Your task to perform on an android device: change the upload size in google photos Image 0: 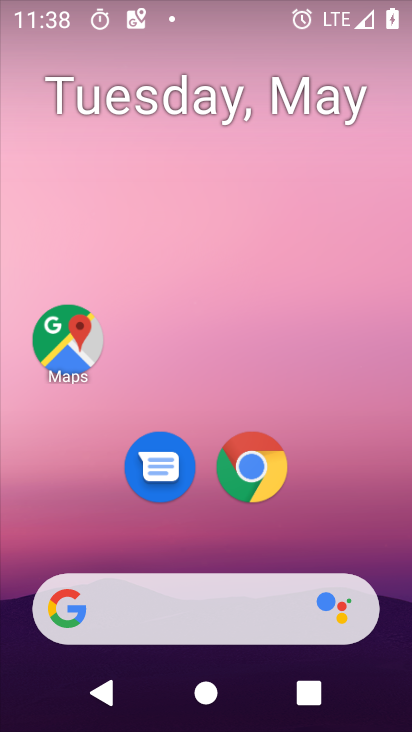
Step 0: drag from (338, 470) to (223, 41)
Your task to perform on an android device: change the upload size in google photos Image 1: 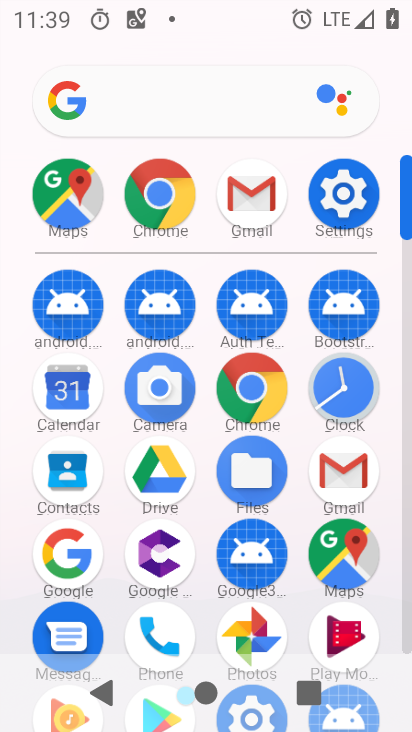
Step 1: drag from (7, 492) to (2, 211)
Your task to perform on an android device: change the upload size in google photos Image 2: 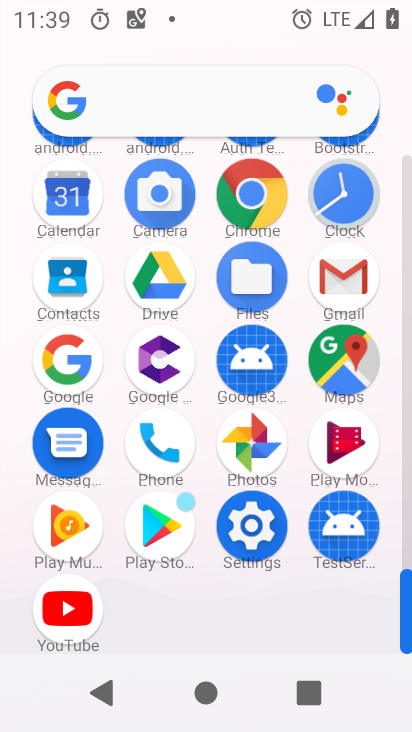
Step 2: click (250, 441)
Your task to perform on an android device: change the upload size in google photos Image 3: 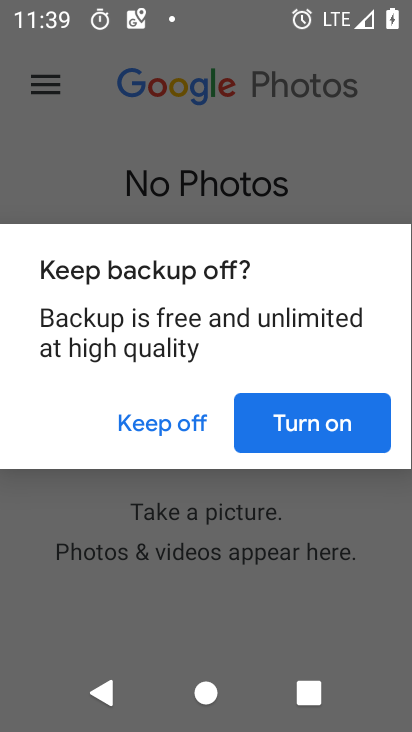
Step 3: press back button
Your task to perform on an android device: change the upload size in google photos Image 4: 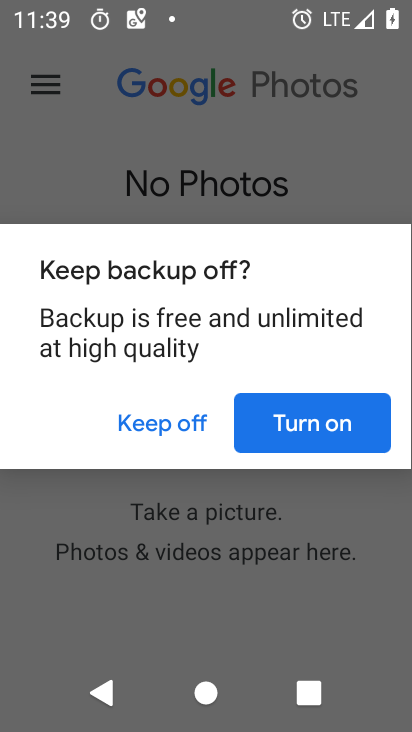
Step 4: press back button
Your task to perform on an android device: change the upload size in google photos Image 5: 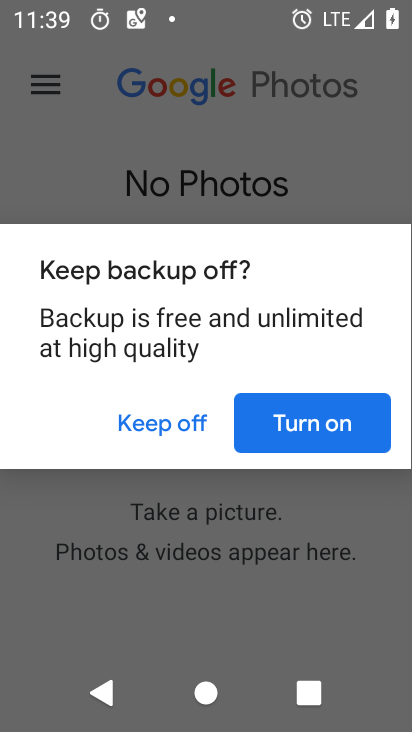
Step 5: click (308, 185)
Your task to perform on an android device: change the upload size in google photos Image 6: 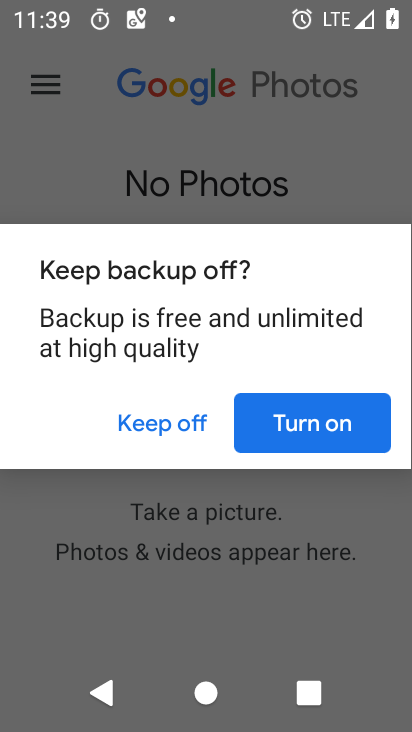
Step 6: click (272, 416)
Your task to perform on an android device: change the upload size in google photos Image 7: 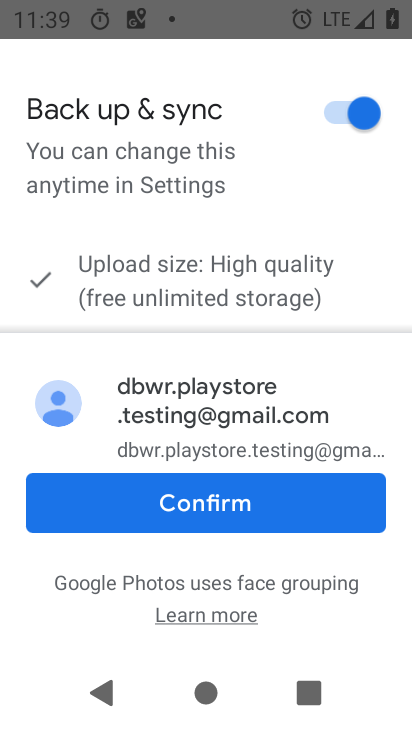
Step 7: click (223, 494)
Your task to perform on an android device: change the upload size in google photos Image 8: 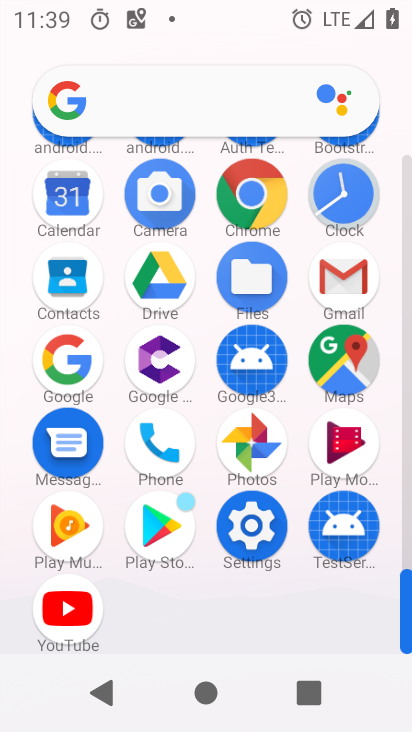
Step 8: click (246, 436)
Your task to perform on an android device: change the upload size in google photos Image 9: 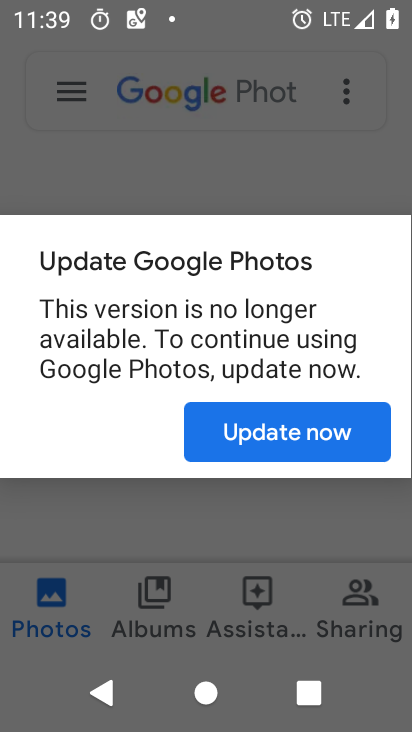
Step 9: click (251, 427)
Your task to perform on an android device: change the upload size in google photos Image 10: 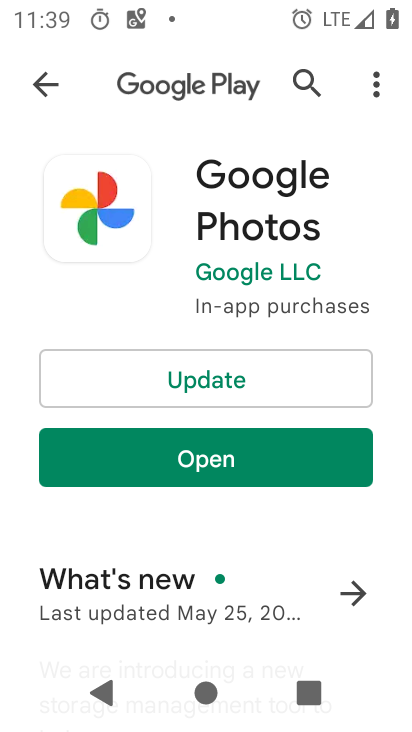
Step 10: click (221, 373)
Your task to perform on an android device: change the upload size in google photos Image 11: 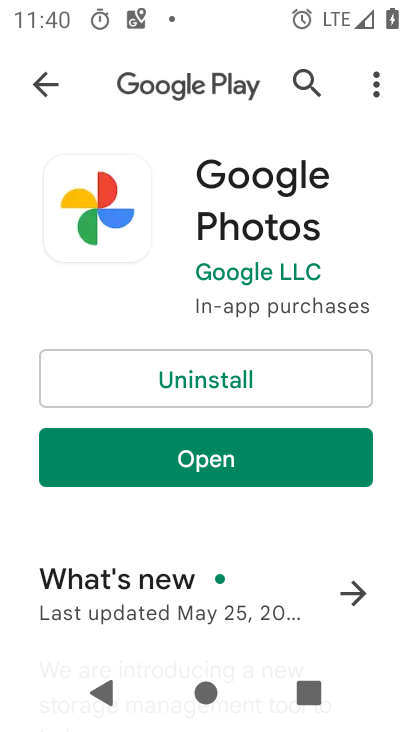
Step 11: click (173, 458)
Your task to perform on an android device: change the upload size in google photos Image 12: 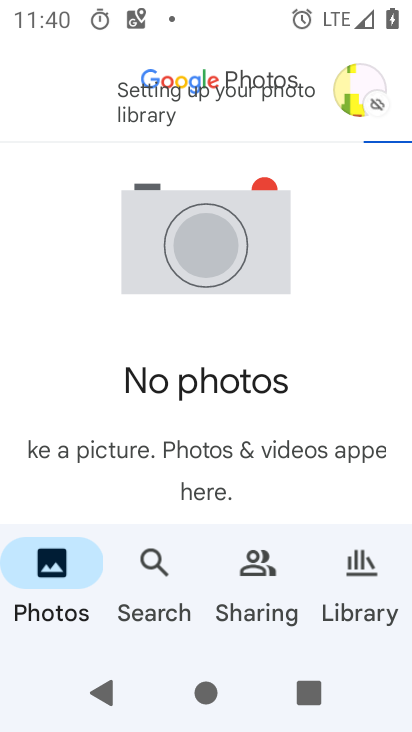
Step 12: click (349, 83)
Your task to perform on an android device: change the upload size in google photos Image 13: 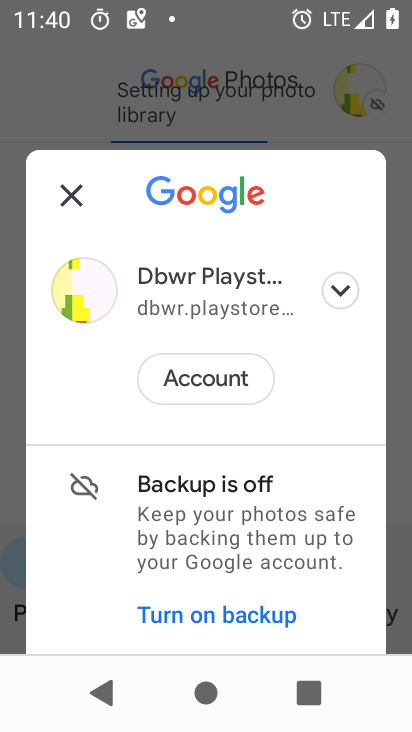
Step 13: drag from (272, 553) to (263, 246)
Your task to perform on an android device: change the upload size in google photos Image 14: 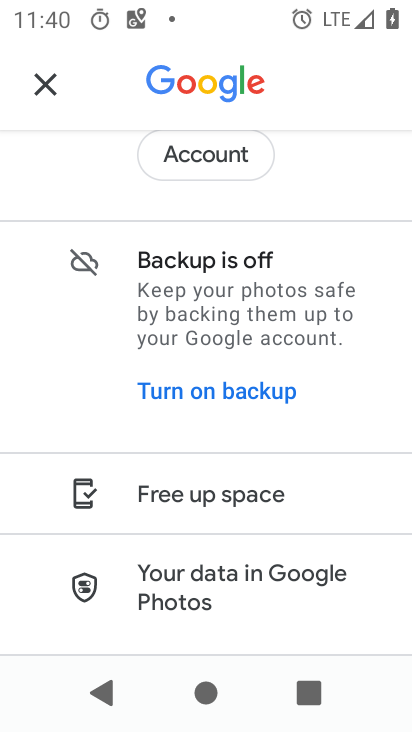
Step 14: drag from (267, 601) to (305, 233)
Your task to perform on an android device: change the upload size in google photos Image 15: 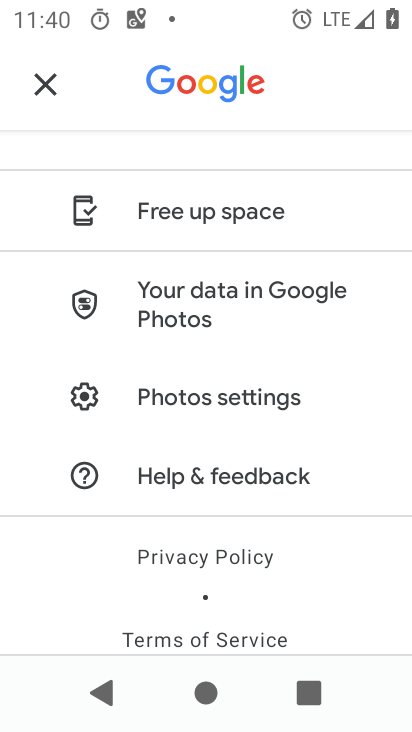
Step 15: click (253, 397)
Your task to perform on an android device: change the upload size in google photos Image 16: 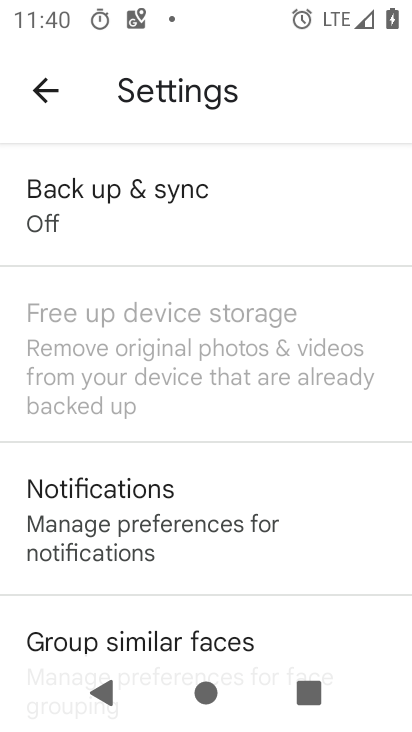
Step 16: drag from (250, 590) to (262, 199)
Your task to perform on an android device: change the upload size in google photos Image 17: 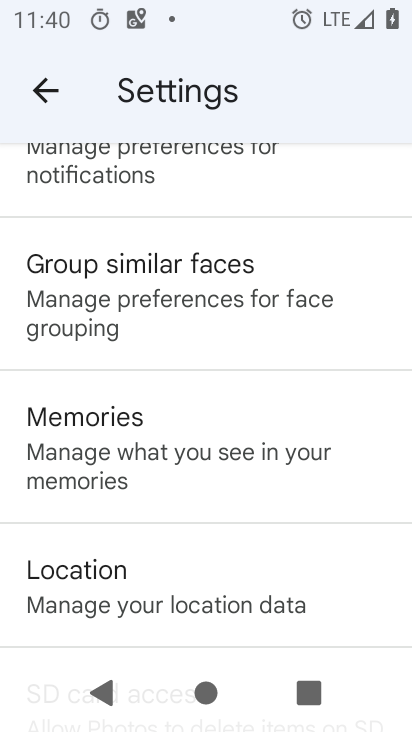
Step 17: drag from (211, 522) to (214, 139)
Your task to perform on an android device: change the upload size in google photos Image 18: 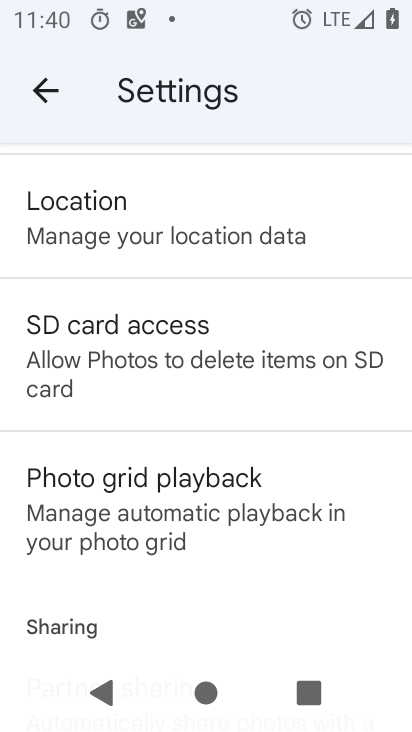
Step 18: drag from (196, 494) to (226, 181)
Your task to perform on an android device: change the upload size in google photos Image 19: 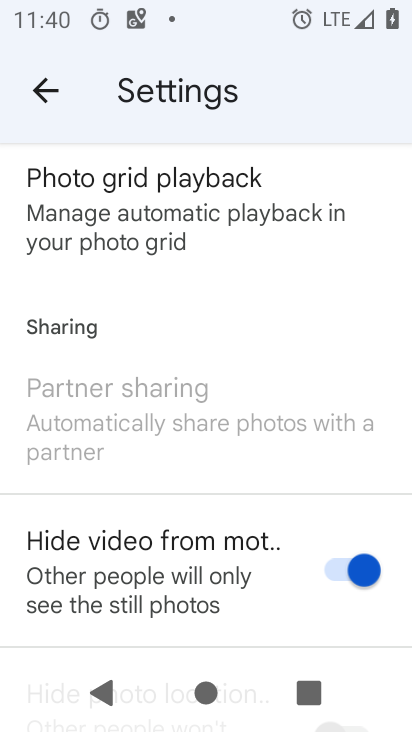
Step 19: drag from (213, 529) to (242, 158)
Your task to perform on an android device: change the upload size in google photos Image 20: 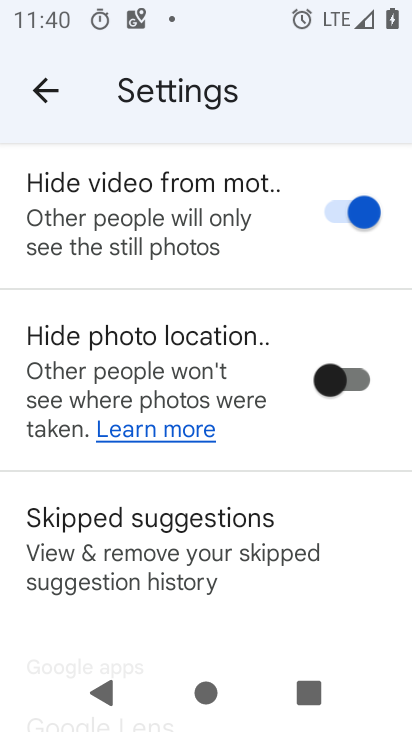
Step 20: drag from (171, 561) to (207, 141)
Your task to perform on an android device: change the upload size in google photos Image 21: 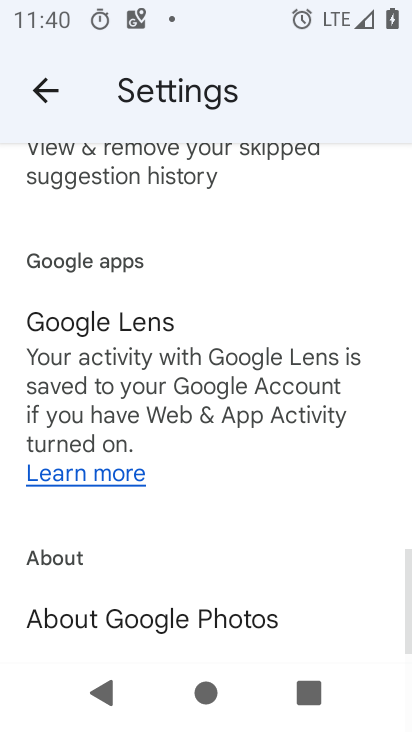
Step 21: drag from (223, 195) to (228, 632)
Your task to perform on an android device: change the upload size in google photos Image 22: 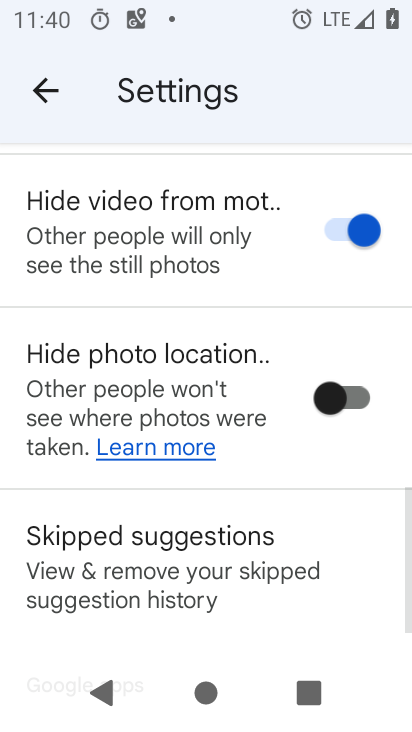
Step 22: drag from (205, 403) to (207, 628)
Your task to perform on an android device: change the upload size in google photos Image 23: 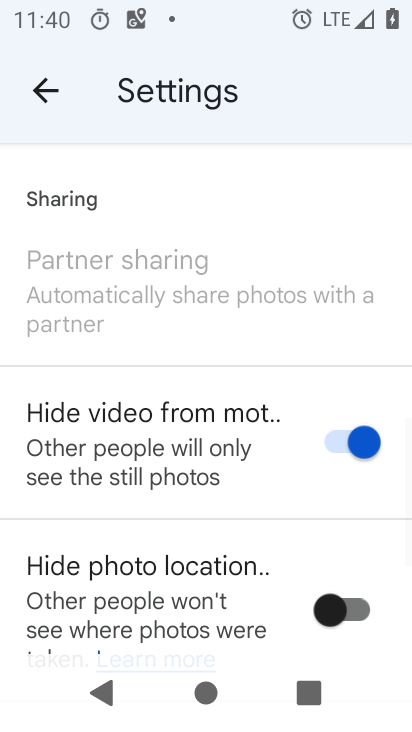
Step 23: drag from (206, 302) to (200, 652)
Your task to perform on an android device: change the upload size in google photos Image 24: 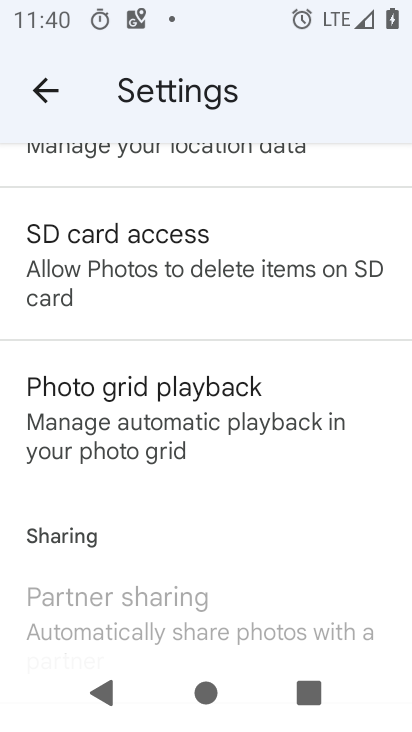
Step 24: drag from (196, 285) to (195, 668)
Your task to perform on an android device: change the upload size in google photos Image 25: 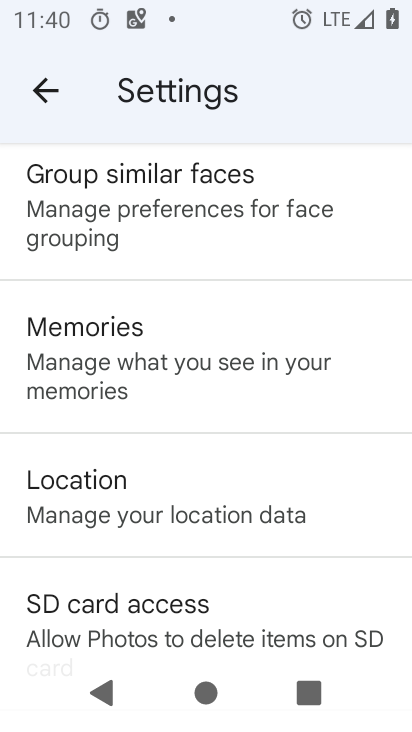
Step 25: drag from (187, 284) to (192, 654)
Your task to perform on an android device: change the upload size in google photos Image 26: 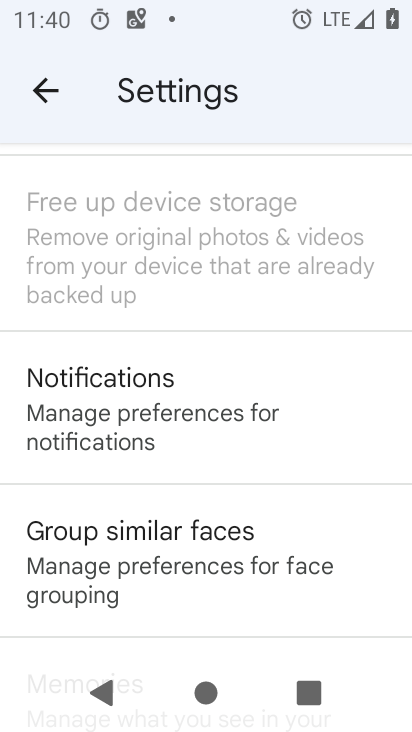
Step 26: drag from (170, 232) to (191, 588)
Your task to perform on an android device: change the upload size in google photos Image 27: 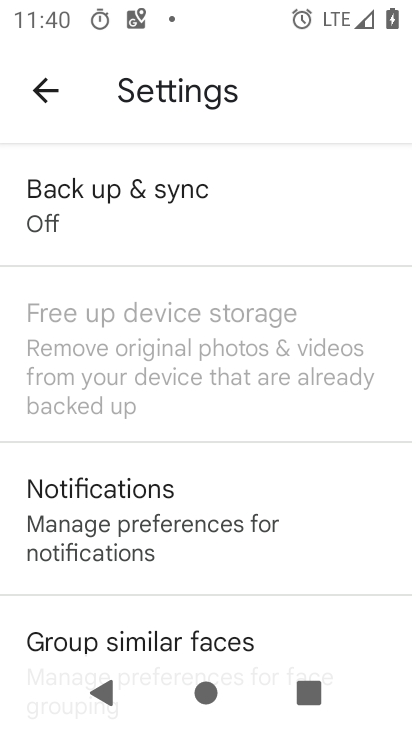
Step 27: click (179, 222)
Your task to perform on an android device: change the upload size in google photos Image 28: 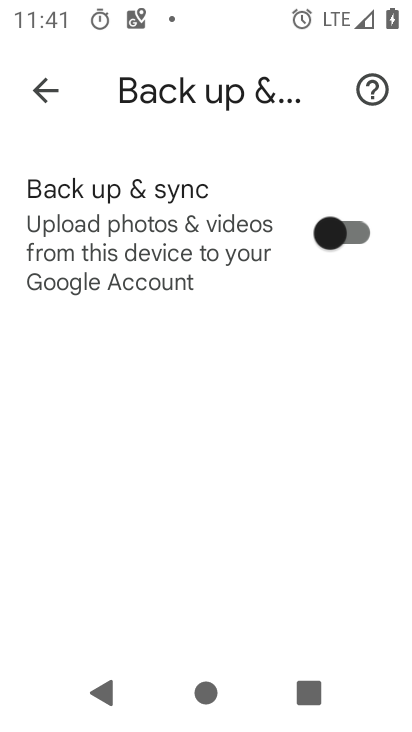
Step 28: task complete